Your task to perform on an android device: open a bookmark in the chrome app Image 0: 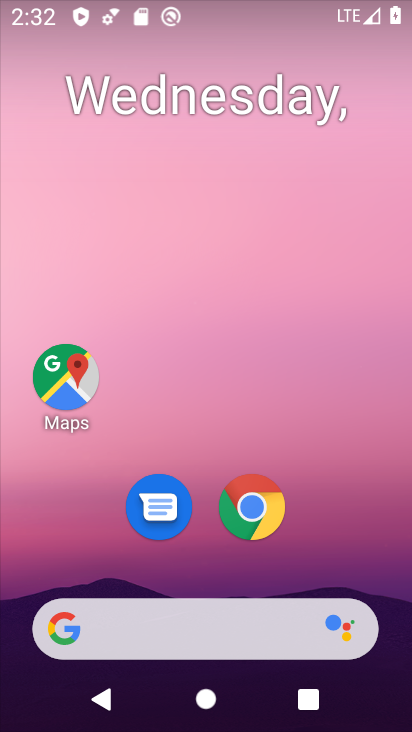
Step 0: click (253, 503)
Your task to perform on an android device: open a bookmark in the chrome app Image 1: 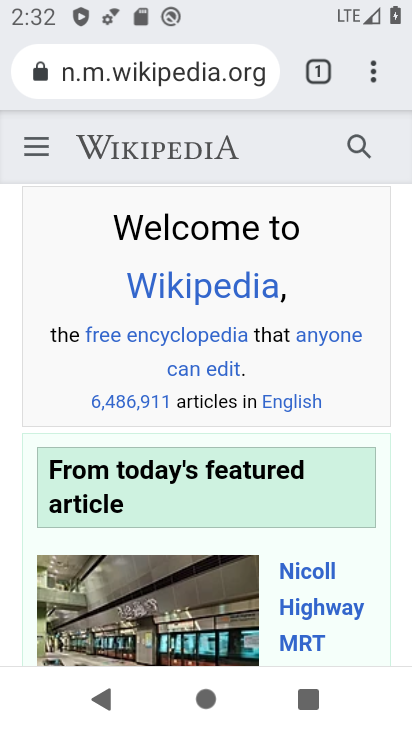
Step 1: click (375, 63)
Your task to perform on an android device: open a bookmark in the chrome app Image 2: 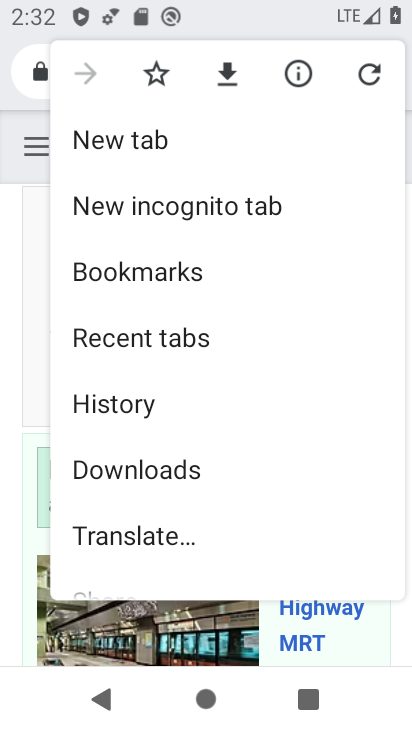
Step 2: click (166, 274)
Your task to perform on an android device: open a bookmark in the chrome app Image 3: 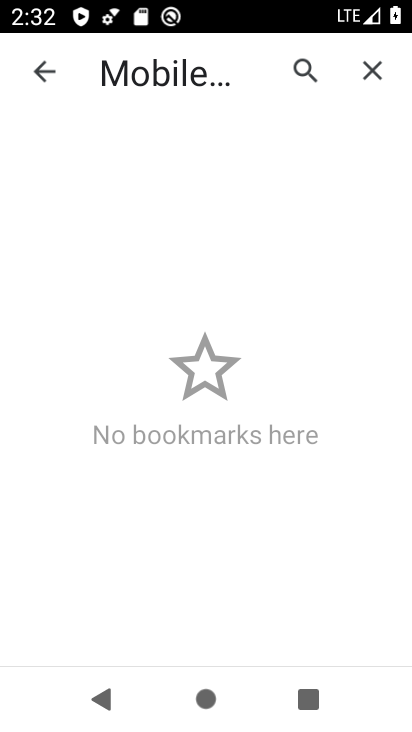
Step 3: task complete